Your task to perform on an android device: turn on data saver in the chrome app Image 0: 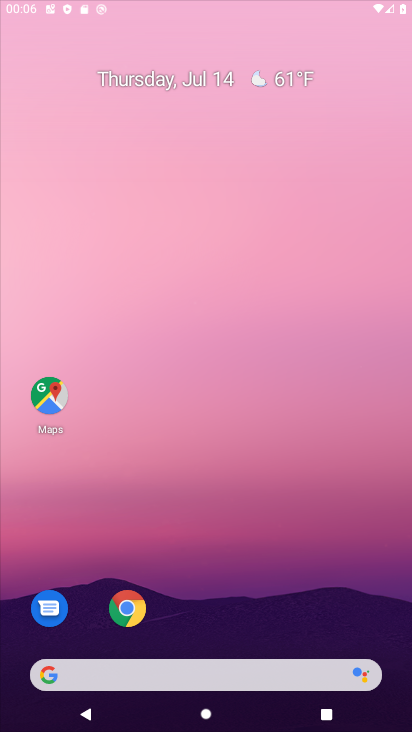
Step 0: click (243, 178)
Your task to perform on an android device: turn on data saver in the chrome app Image 1: 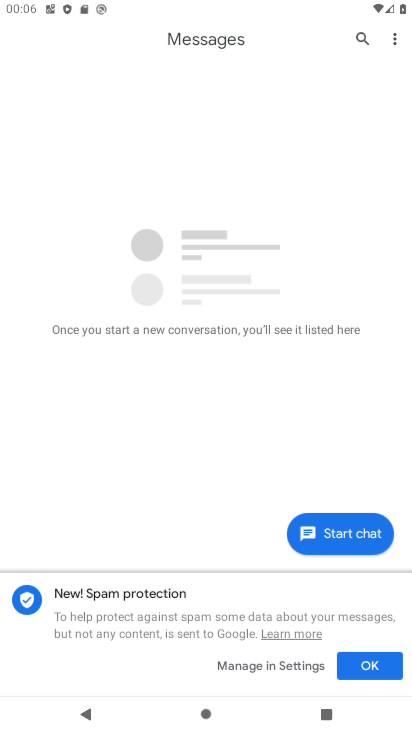
Step 1: drag from (179, 614) to (270, 247)
Your task to perform on an android device: turn on data saver in the chrome app Image 2: 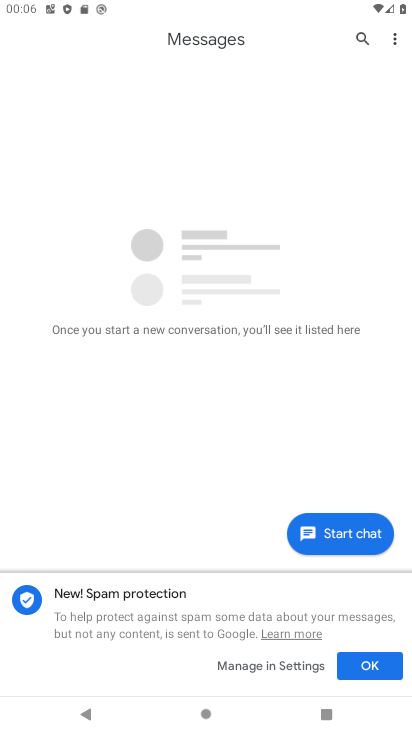
Step 2: drag from (180, 519) to (196, 356)
Your task to perform on an android device: turn on data saver in the chrome app Image 3: 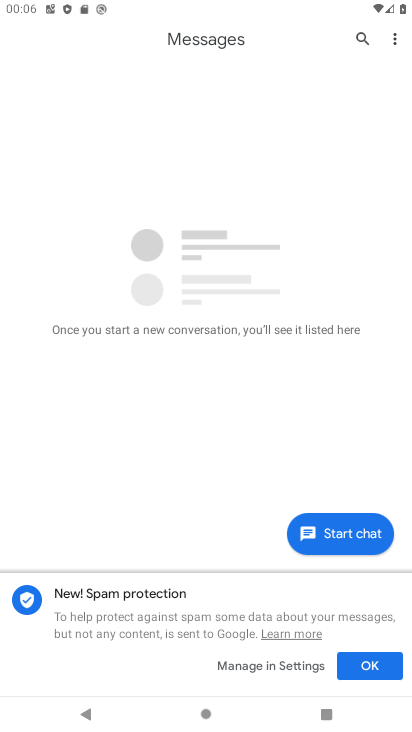
Step 3: press home button
Your task to perform on an android device: turn on data saver in the chrome app Image 4: 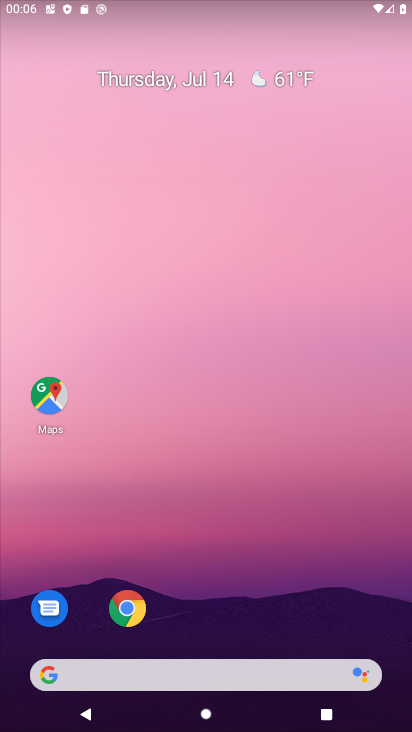
Step 4: drag from (179, 677) to (210, 377)
Your task to perform on an android device: turn on data saver in the chrome app Image 5: 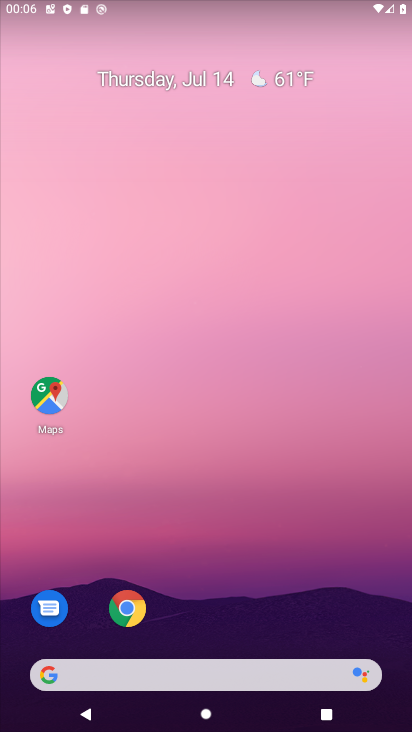
Step 5: drag from (158, 660) to (180, 146)
Your task to perform on an android device: turn on data saver in the chrome app Image 6: 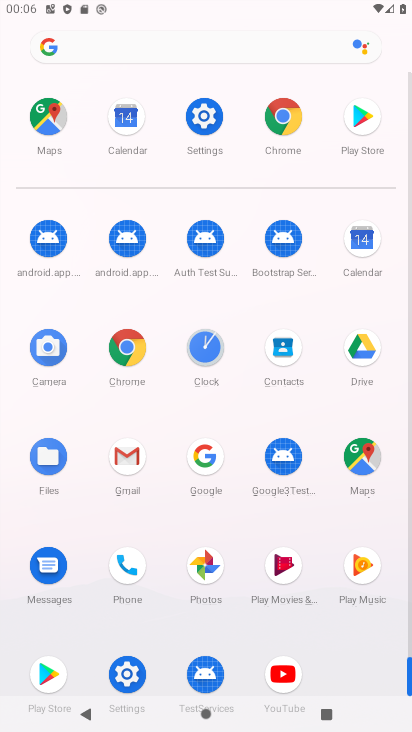
Step 6: click (135, 347)
Your task to perform on an android device: turn on data saver in the chrome app Image 7: 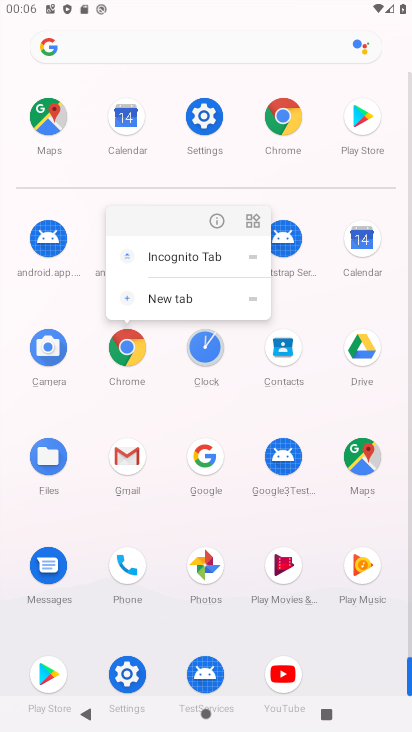
Step 7: click (222, 212)
Your task to perform on an android device: turn on data saver in the chrome app Image 8: 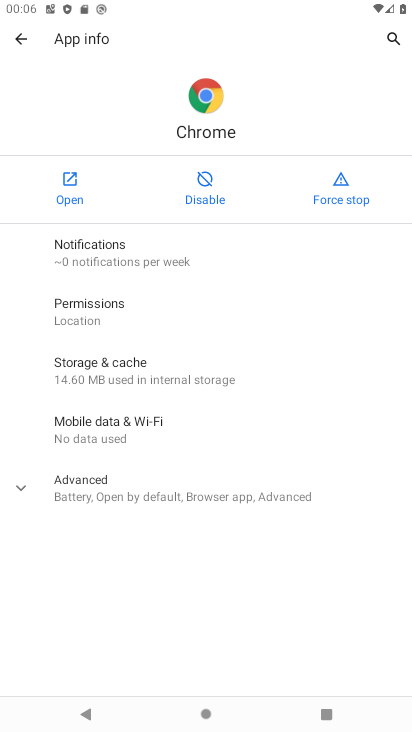
Step 8: click (55, 178)
Your task to perform on an android device: turn on data saver in the chrome app Image 9: 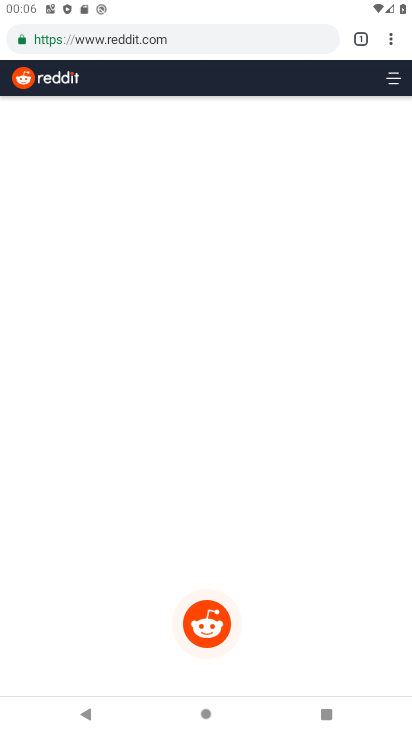
Step 9: click (386, 54)
Your task to perform on an android device: turn on data saver in the chrome app Image 10: 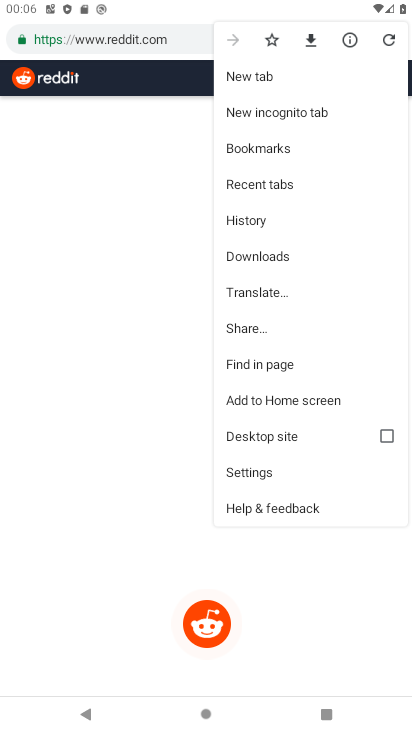
Step 10: click (268, 468)
Your task to perform on an android device: turn on data saver in the chrome app Image 11: 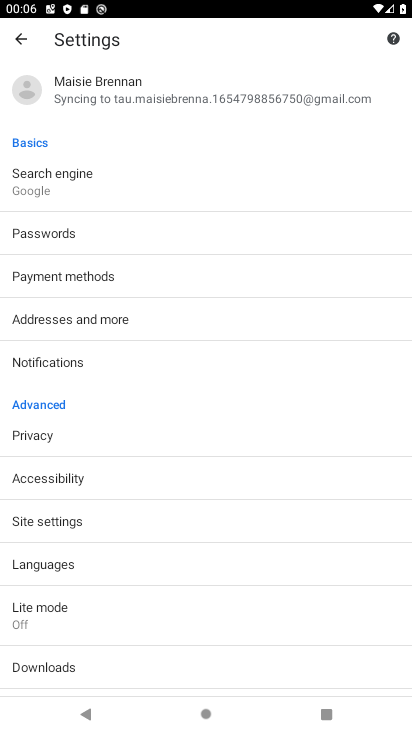
Step 11: drag from (111, 602) to (211, 158)
Your task to perform on an android device: turn on data saver in the chrome app Image 12: 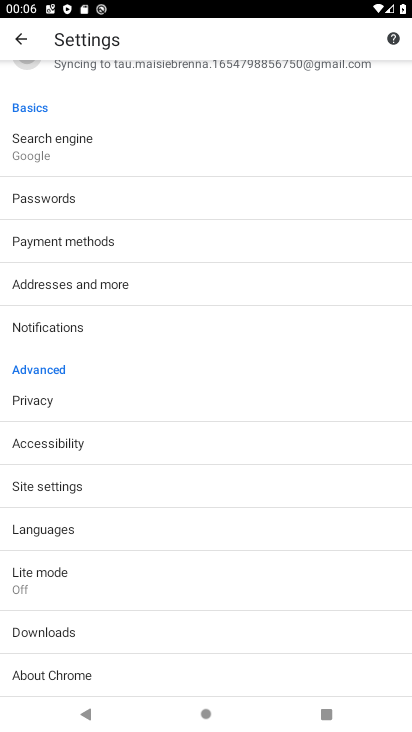
Step 12: click (115, 582)
Your task to perform on an android device: turn on data saver in the chrome app Image 13: 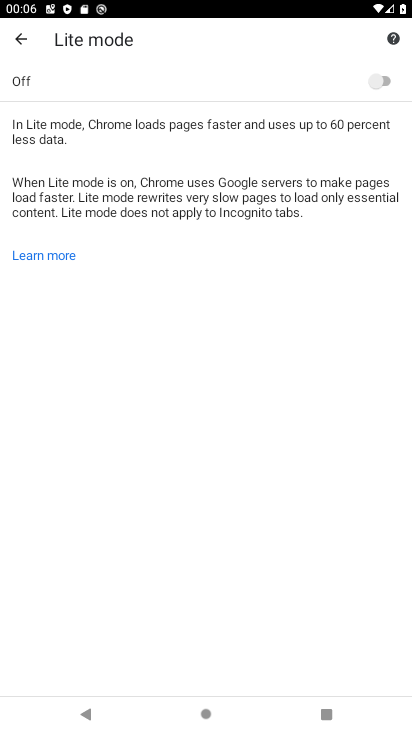
Step 13: click (103, 589)
Your task to perform on an android device: turn on data saver in the chrome app Image 14: 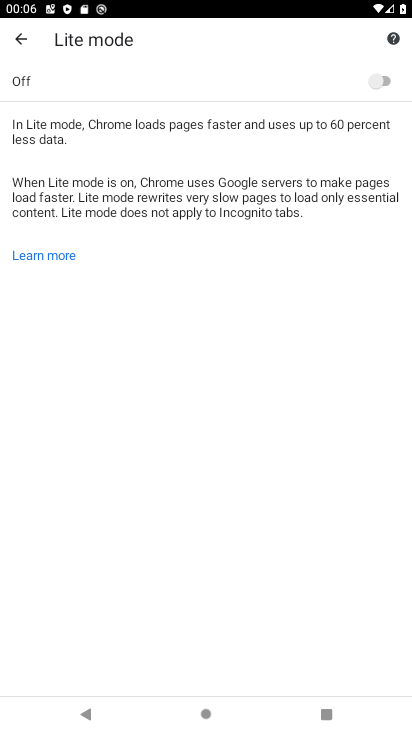
Step 14: drag from (134, 499) to (151, 435)
Your task to perform on an android device: turn on data saver in the chrome app Image 15: 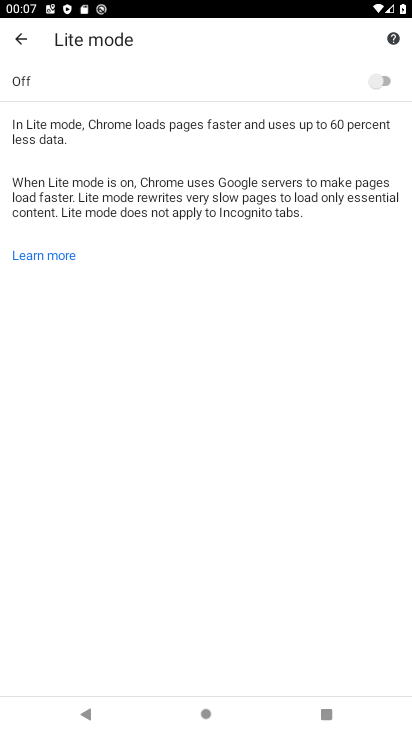
Step 15: click (359, 88)
Your task to perform on an android device: turn on data saver in the chrome app Image 16: 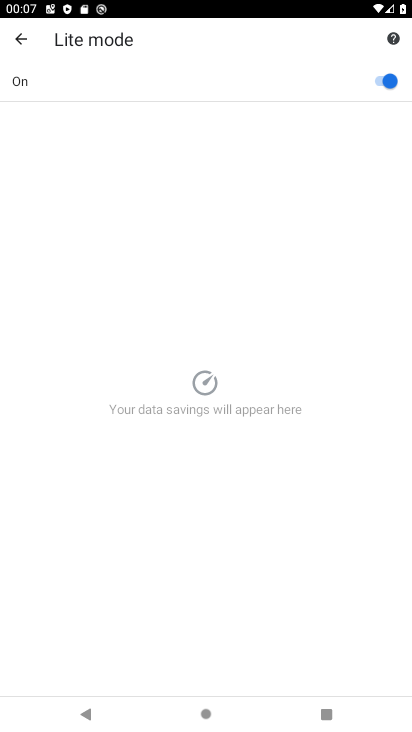
Step 16: drag from (217, 526) to (240, 394)
Your task to perform on an android device: turn on data saver in the chrome app Image 17: 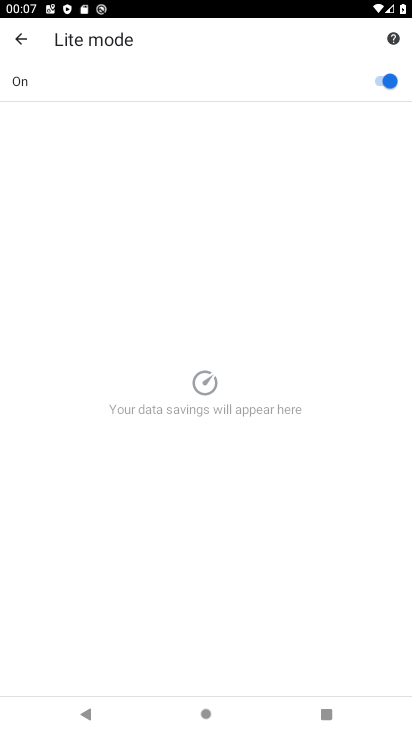
Step 17: drag from (182, 177) to (220, 640)
Your task to perform on an android device: turn on data saver in the chrome app Image 18: 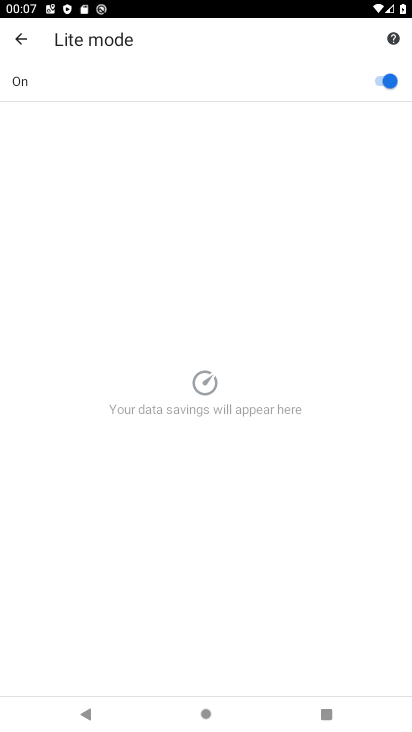
Step 18: click (272, 288)
Your task to perform on an android device: turn on data saver in the chrome app Image 19: 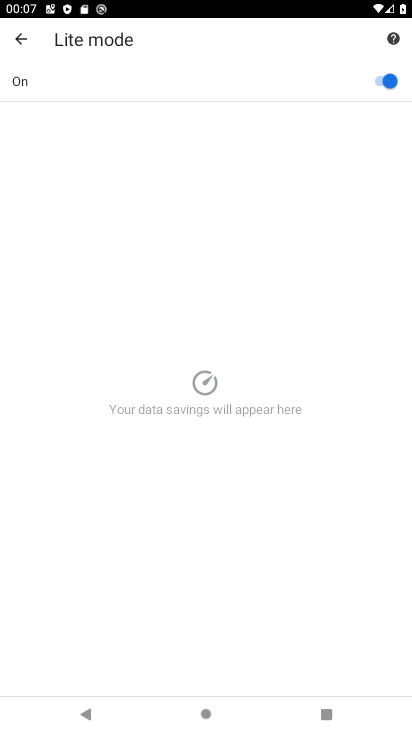
Step 19: task complete